Your task to perform on an android device: allow cookies in the chrome app Image 0: 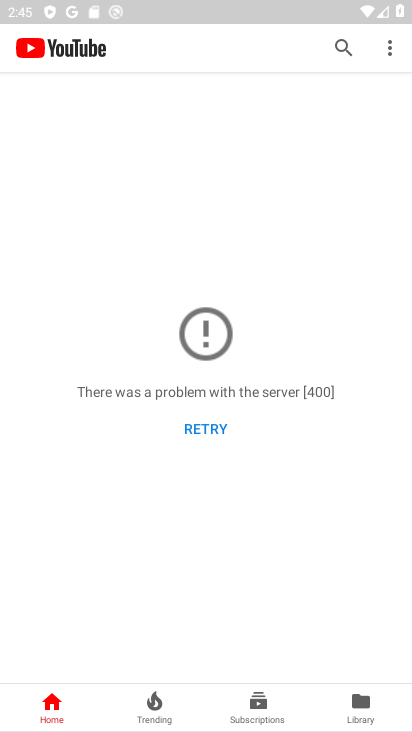
Step 0: press home button
Your task to perform on an android device: allow cookies in the chrome app Image 1: 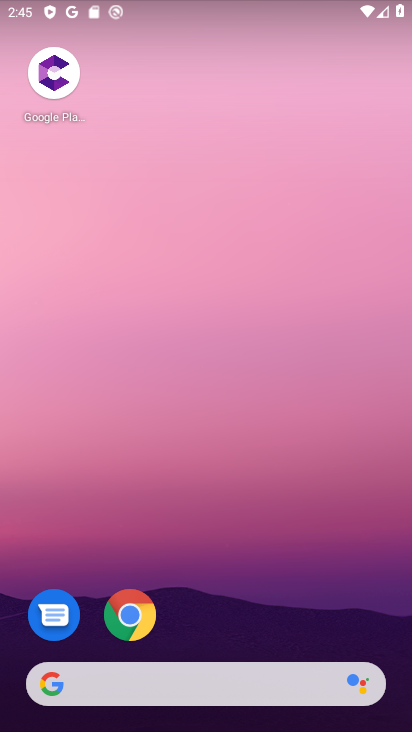
Step 1: click (132, 612)
Your task to perform on an android device: allow cookies in the chrome app Image 2: 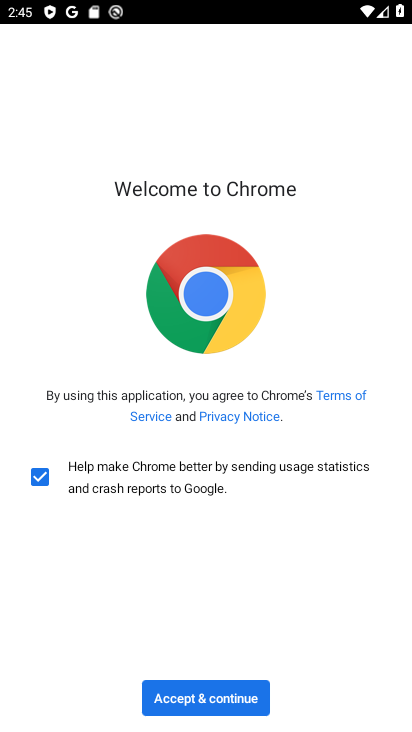
Step 2: click (192, 696)
Your task to perform on an android device: allow cookies in the chrome app Image 3: 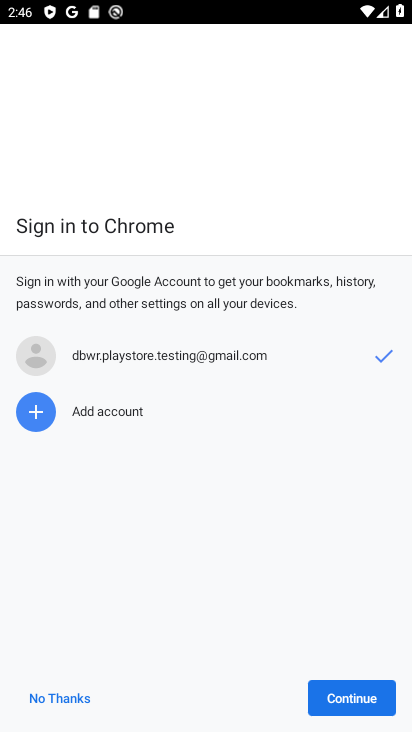
Step 3: click (328, 707)
Your task to perform on an android device: allow cookies in the chrome app Image 4: 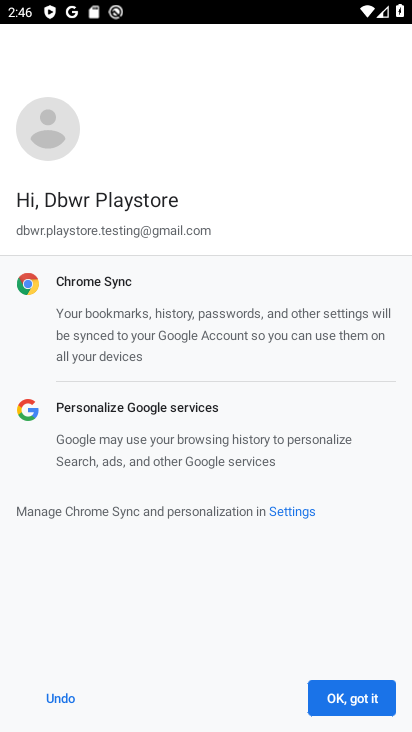
Step 4: click (330, 707)
Your task to perform on an android device: allow cookies in the chrome app Image 5: 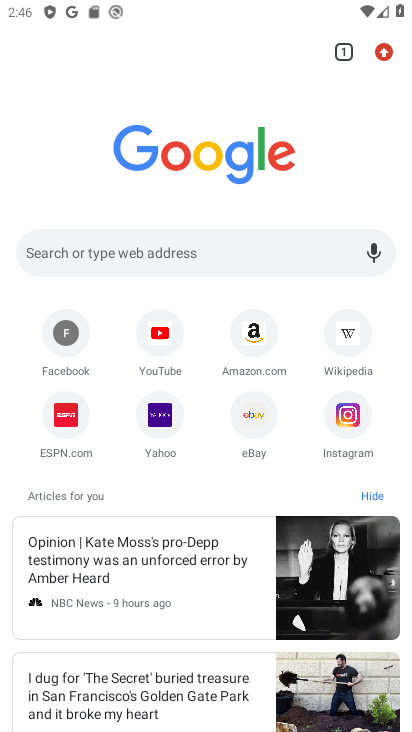
Step 5: click (383, 49)
Your task to perform on an android device: allow cookies in the chrome app Image 6: 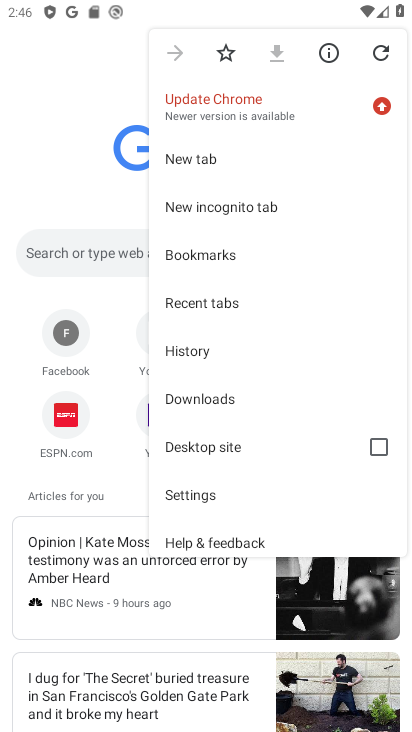
Step 6: click (205, 495)
Your task to perform on an android device: allow cookies in the chrome app Image 7: 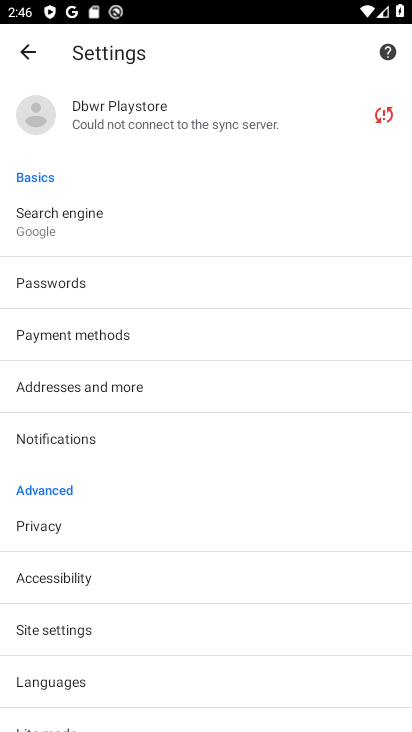
Step 7: click (87, 635)
Your task to perform on an android device: allow cookies in the chrome app Image 8: 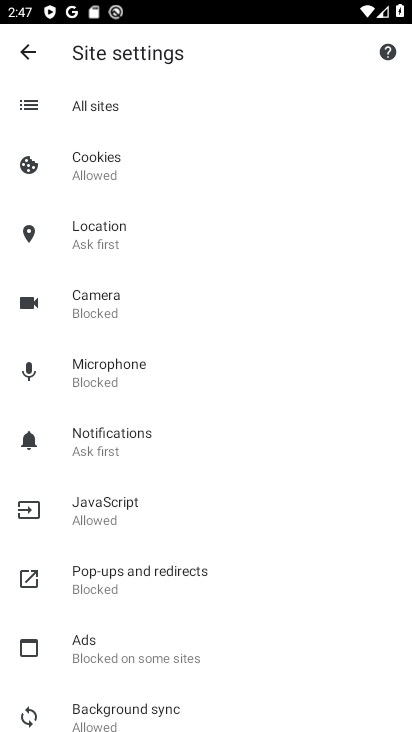
Step 8: click (104, 154)
Your task to perform on an android device: allow cookies in the chrome app Image 9: 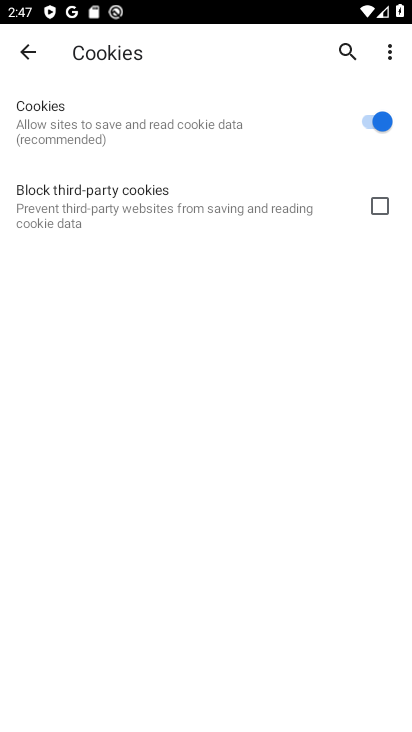
Step 9: task complete